Your task to perform on an android device: Go to network settings Image 0: 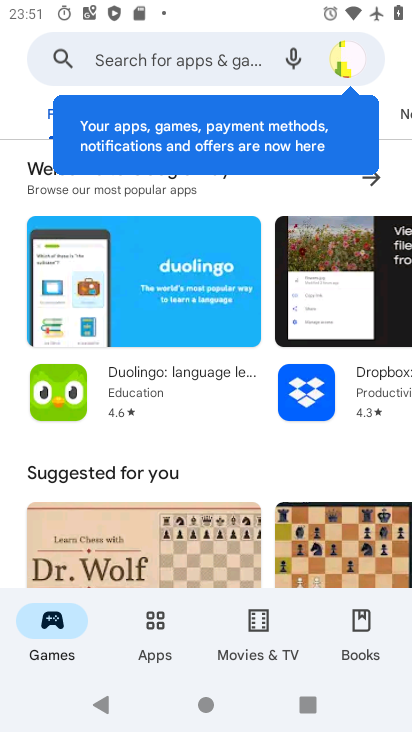
Step 0: press back button
Your task to perform on an android device: Go to network settings Image 1: 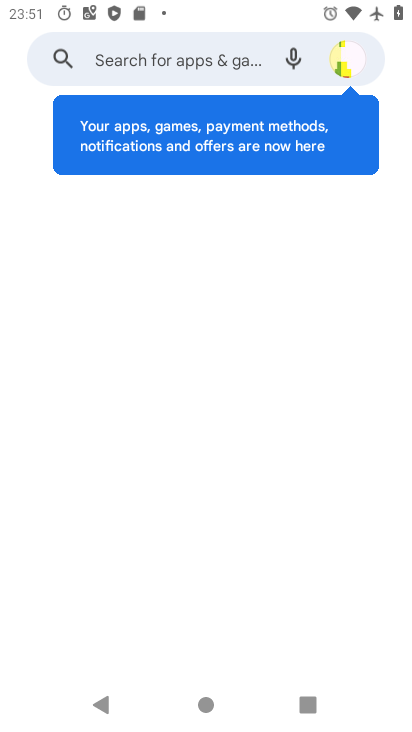
Step 1: press back button
Your task to perform on an android device: Go to network settings Image 2: 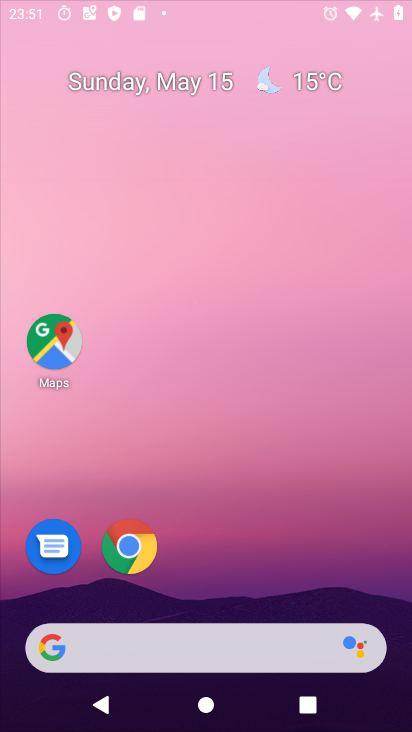
Step 2: press back button
Your task to perform on an android device: Go to network settings Image 3: 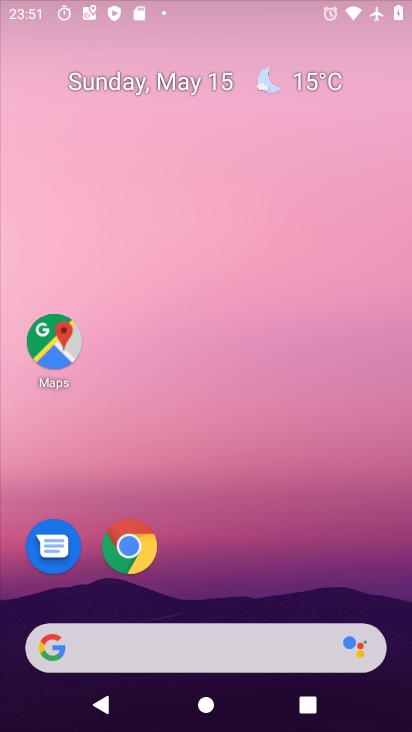
Step 3: press back button
Your task to perform on an android device: Go to network settings Image 4: 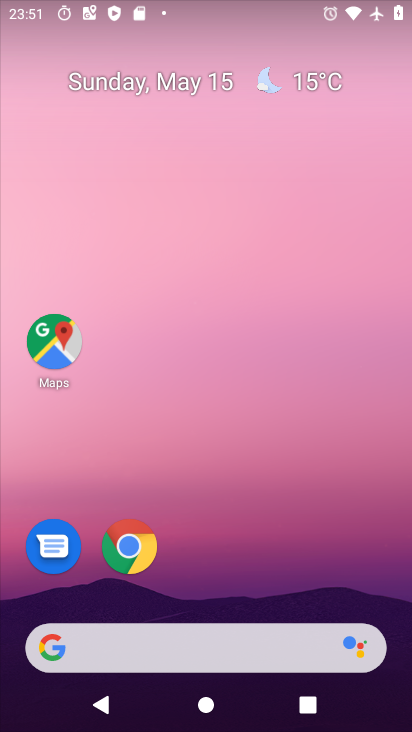
Step 4: drag from (235, 628) to (166, 23)
Your task to perform on an android device: Go to network settings Image 5: 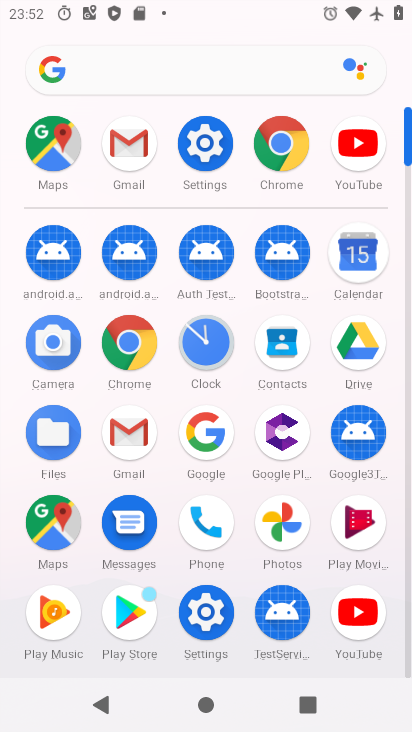
Step 5: click (206, 615)
Your task to perform on an android device: Go to network settings Image 6: 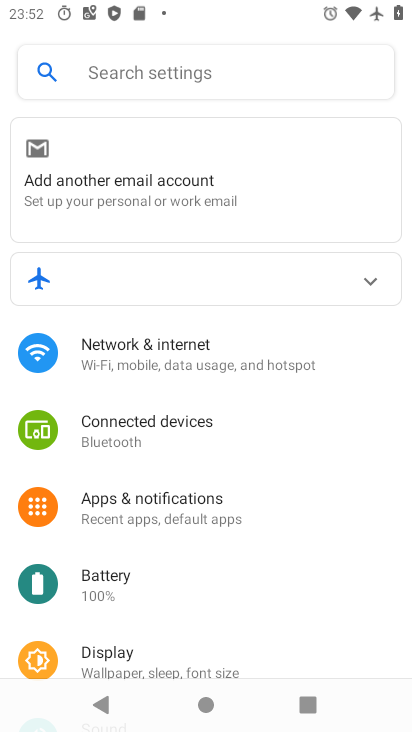
Step 6: click (159, 355)
Your task to perform on an android device: Go to network settings Image 7: 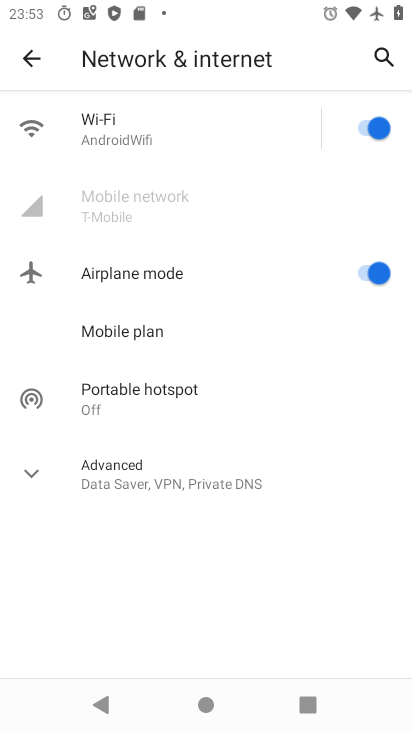
Step 7: task complete